Your task to perform on an android device: Go to battery settings Image 0: 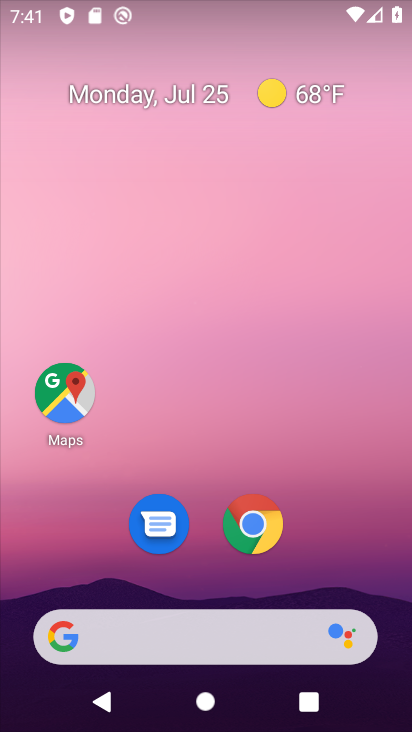
Step 0: drag from (308, 535) to (365, 45)
Your task to perform on an android device: Go to battery settings Image 1: 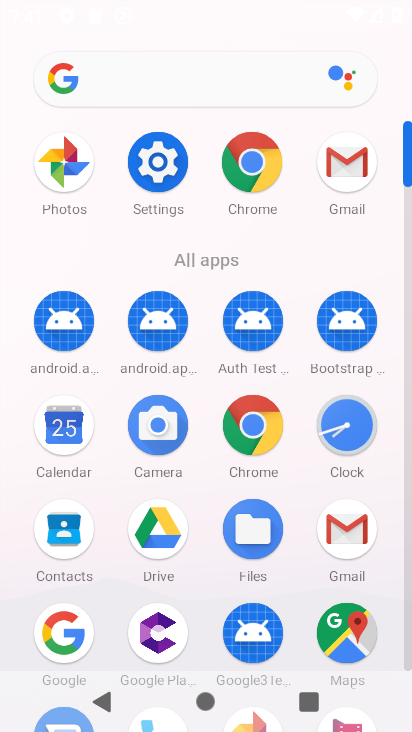
Step 1: click (155, 166)
Your task to perform on an android device: Go to battery settings Image 2: 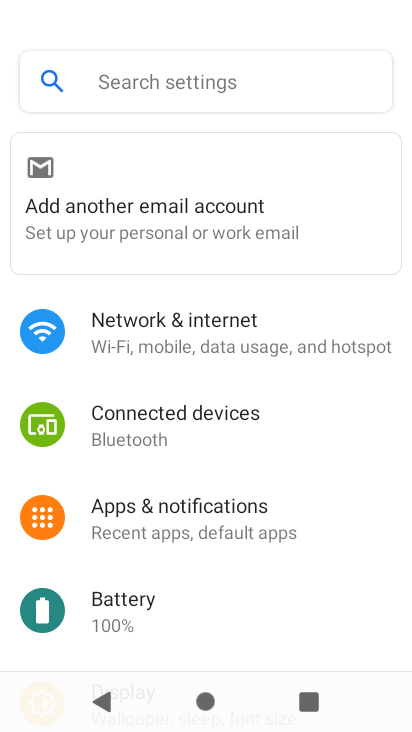
Step 2: click (145, 603)
Your task to perform on an android device: Go to battery settings Image 3: 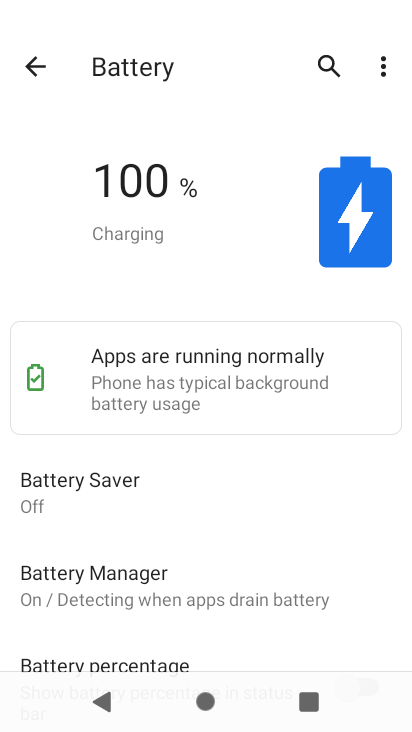
Step 3: task complete